Your task to perform on an android device: create a new album in the google photos Image 0: 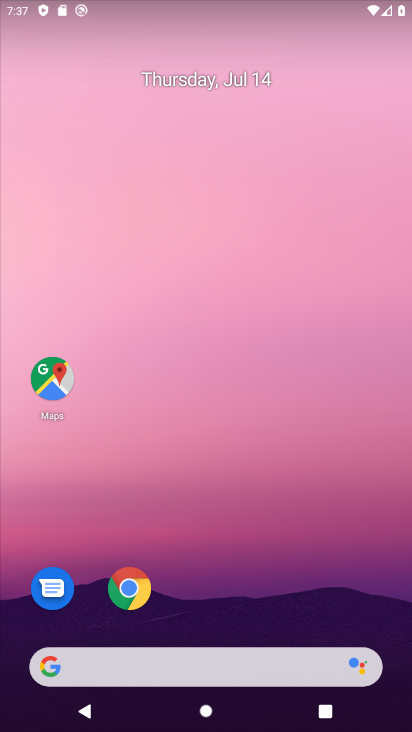
Step 0: drag from (49, 557) to (219, 95)
Your task to perform on an android device: create a new album in the google photos Image 1: 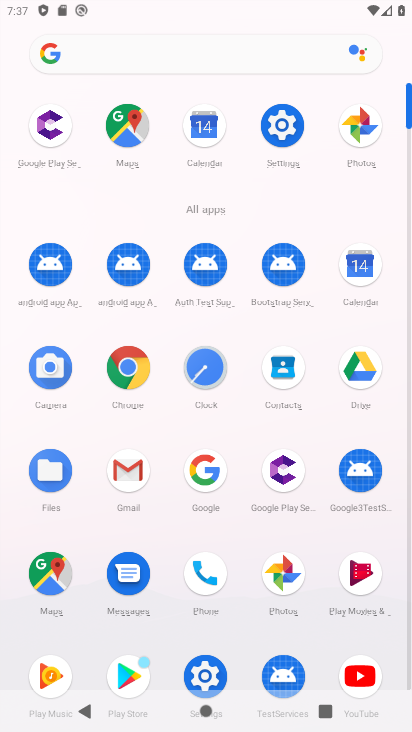
Step 1: click (285, 584)
Your task to perform on an android device: create a new album in the google photos Image 2: 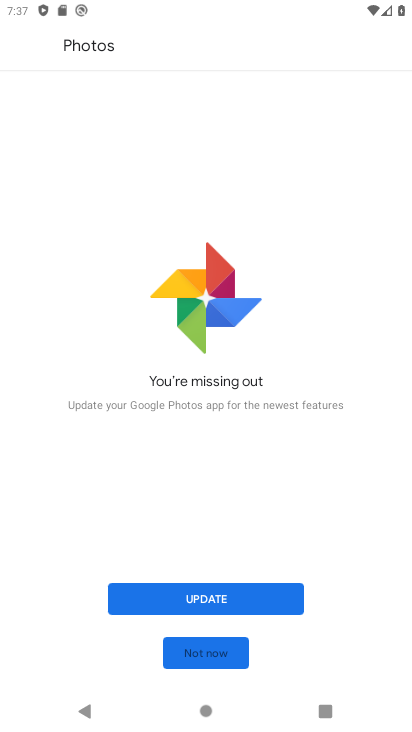
Step 2: click (212, 663)
Your task to perform on an android device: create a new album in the google photos Image 3: 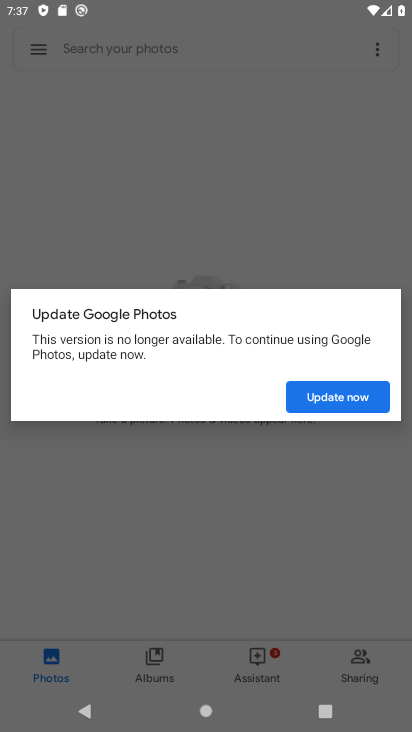
Step 3: click (328, 393)
Your task to perform on an android device: create a new album in the google photos Image 4: 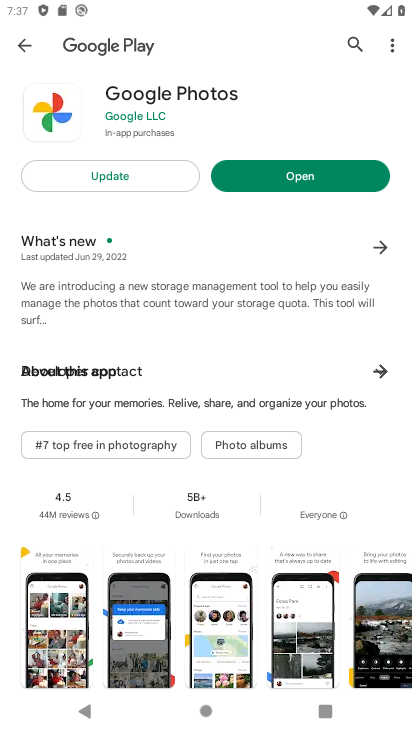
Step 4: click (280, 180)
Your task to perform on an android device: create a new album in the google photos Image 5: 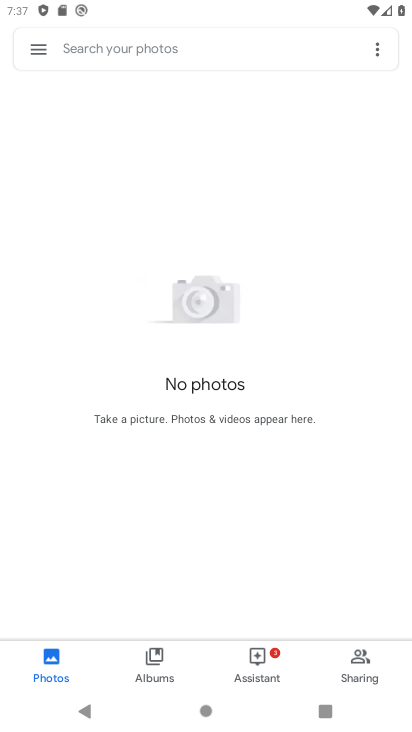
Step 5: click (42, 44)
Your task to perform on an android device: create a new album in the google photos Image 6: 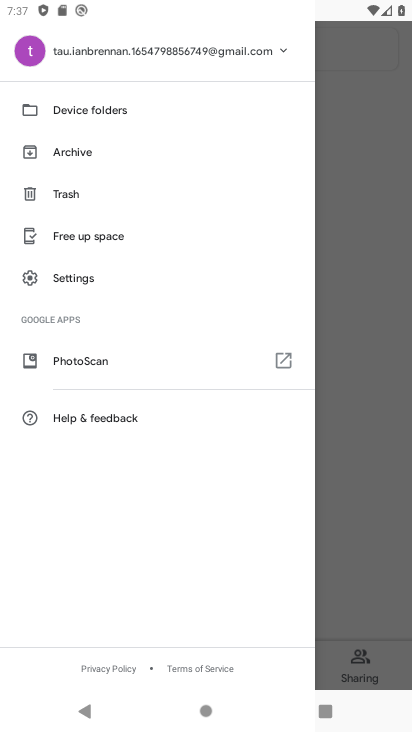
Step 6: click (368, 222)
Your task to perform on an android device: create a new album in the google photos Image 7: 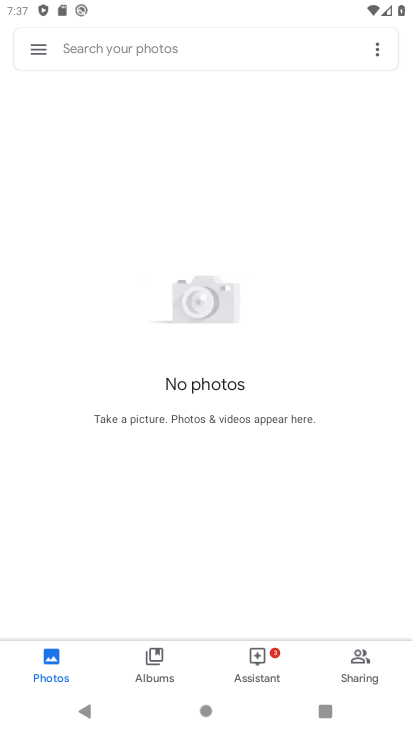
Step 7: click (378, 48)
Your task to perform on an android device: create a new album in the google photos Image 8: 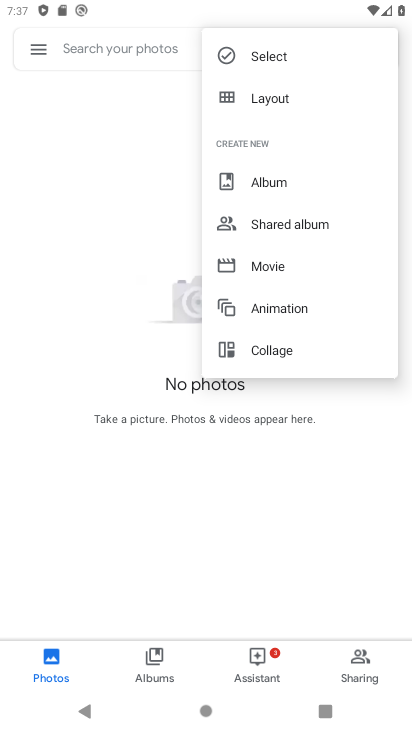
Step 8: click (70, 200)
Your task to perform on an android device: create a new album in the google photos Image 9: 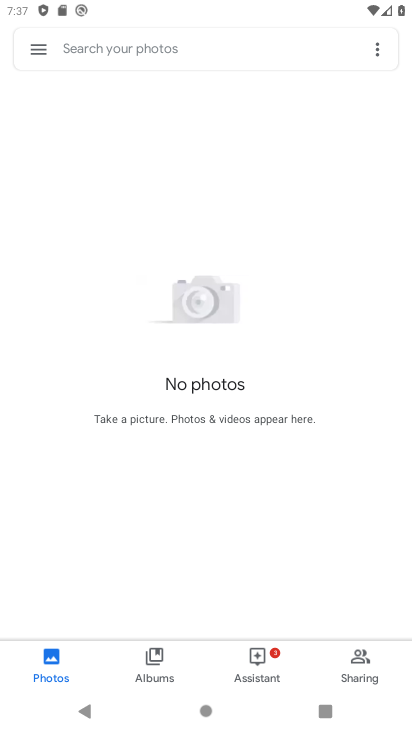
Step 9: task complete